Your task to perform on an android device: turn on the 12-hour format for clock Image 0: 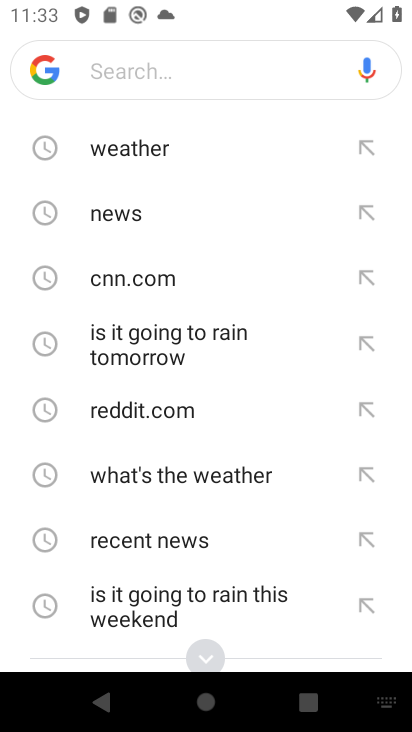
Step 0: press home button
Your task to perform on an android device: turn on the 12-hour format for clock Image 1: 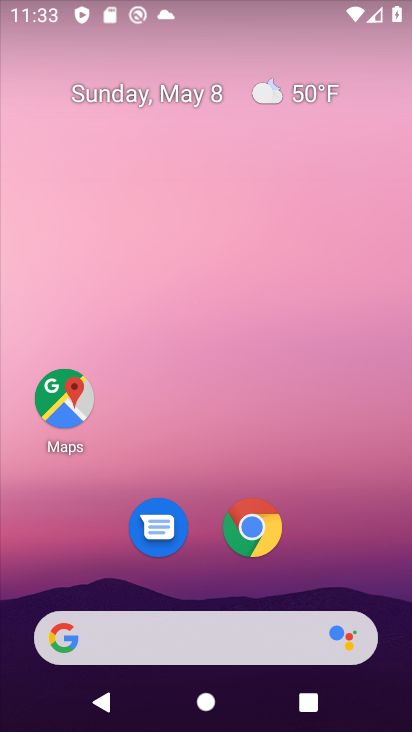
Step 1: drag from (218, 723) to (224, 295)
Your task to perform on an android device: turn on the 12-hour format for clock Image 2: 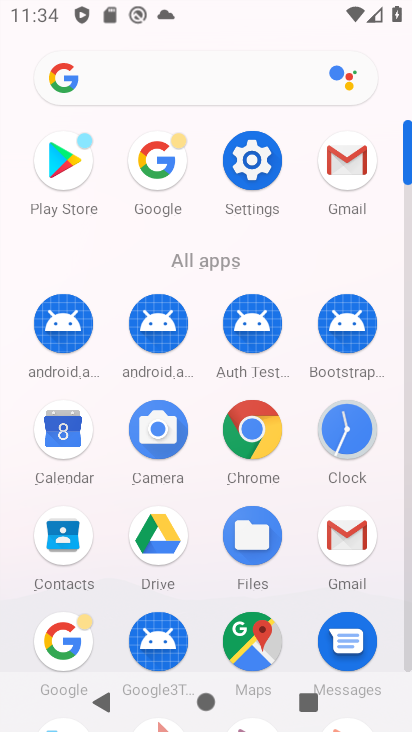
Step 2: drag from (198, 648) to (203, 265)
Your task to perform on an android device: turn on the 12-hour format for clock Image 3: 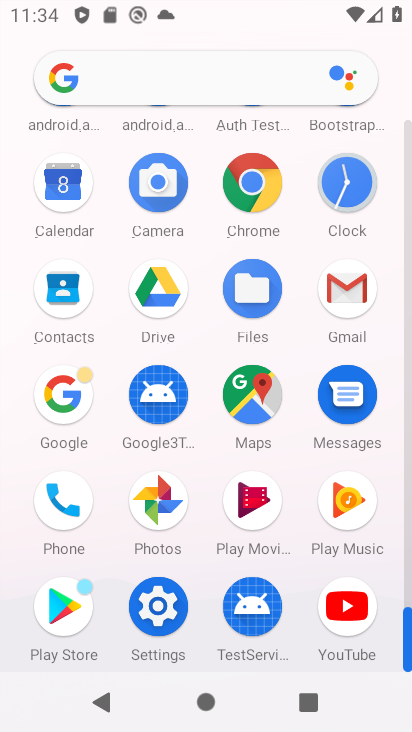
Step 3: click (340, 191)
Your task to perform on an android device: turn on the 12-hour format for clock Image 4: 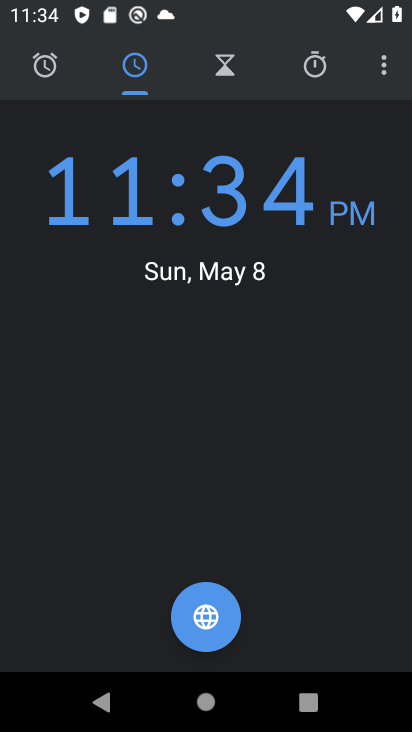
Step 4: click (383, 72)
Your task to perform on an android device: turn on the 12-hour format for clock Image 5: 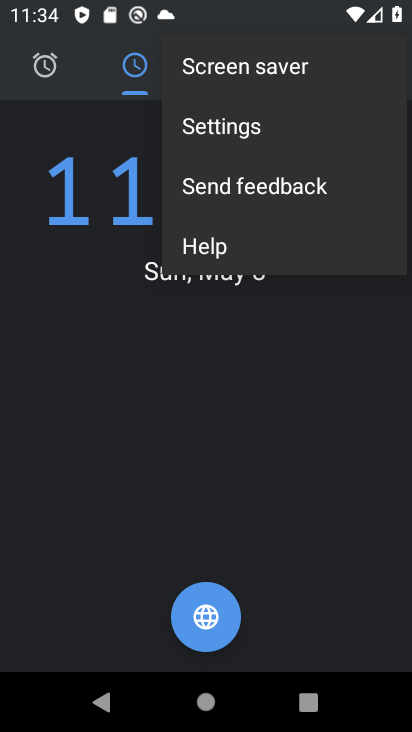
Step 5: click (224, 127)
Your task to perform on an android device: turn on the 12-hour format for clock Image 6: 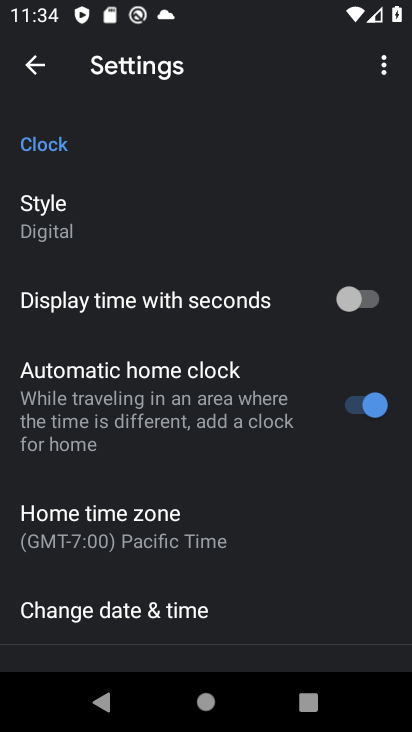
Step 6: click (85, 612)
Your task to perform on an android device: turn on the 12-hour format for clock Image 7: 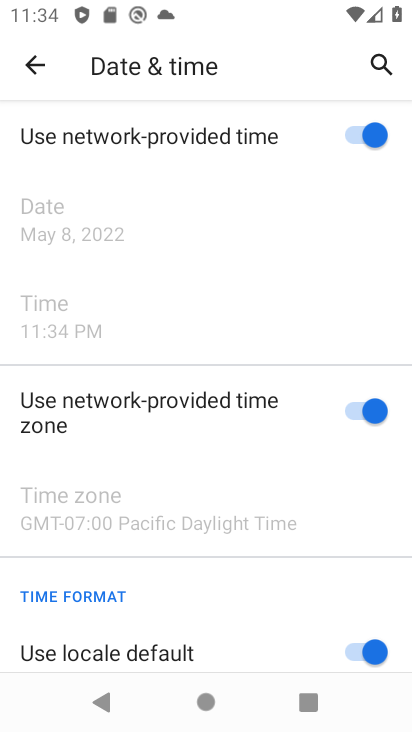
Step 7: task complete